Your task to perform on an android device: Open Android settings Image 0: 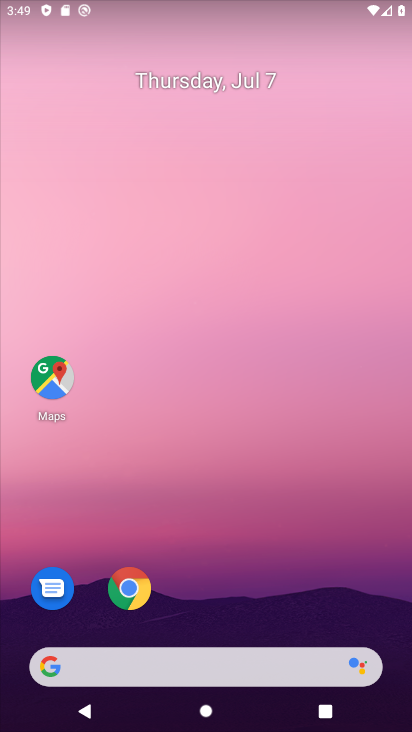
Step 0: press home button
Your task to perform on an android device: Open Android settings Image 1: 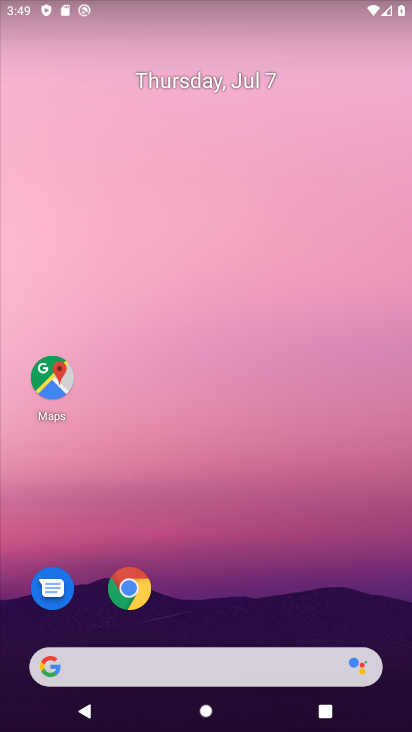
Step 1: drag from (297, 619) to (208, 231)
Your task to perform on an android device: Open Android settings Image 2: 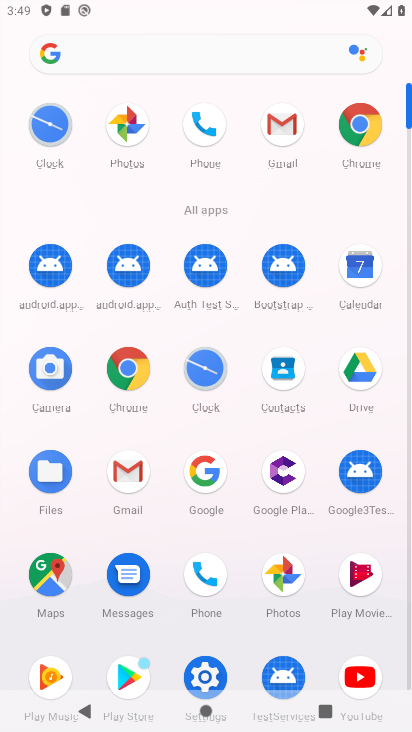
Step 2: click (199, 670)
Your task to perform on an android device: Open Android settings Image 3: 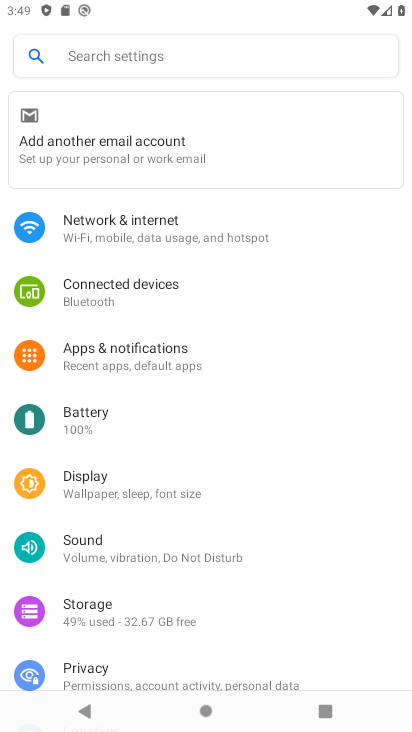
Step 3: task complete